Your task to perform on an android device: Turn off the flashlight Image 0: 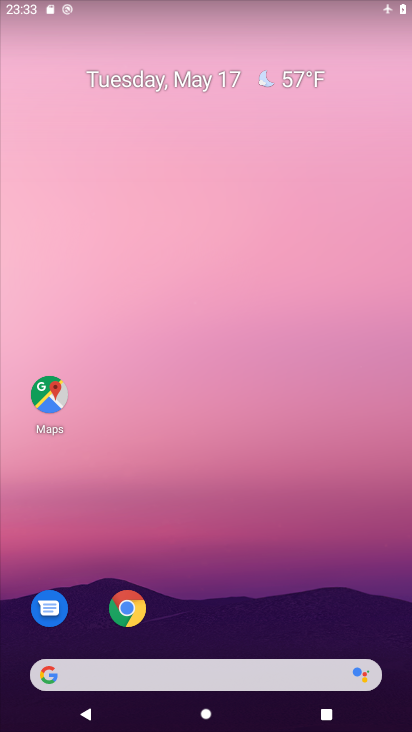
Step 0: drag from (202, 627) to (246, 148)
Your task to perform on an android device: Turn off the flashlight Image 1: 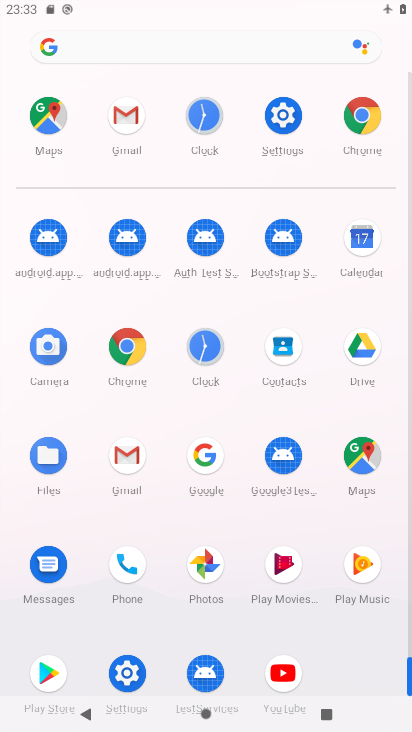
Step 1: click (124, 674)
Your task to perform on an android device: Turn off the flashlight Image 2: 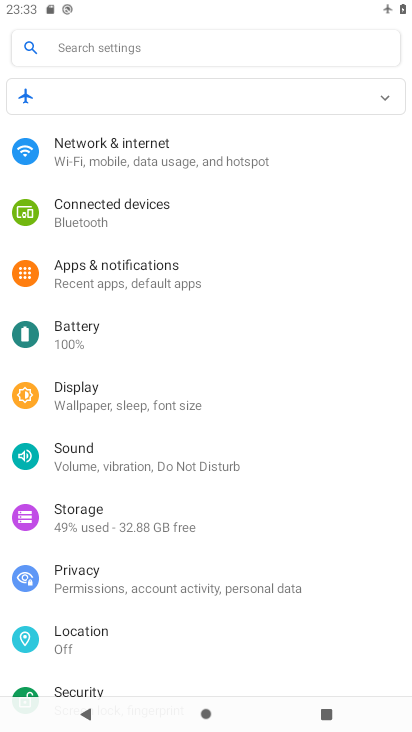
Step 2: click (148, 45)
Your task to perform on an android device: Turn off the flashlight Image 3: 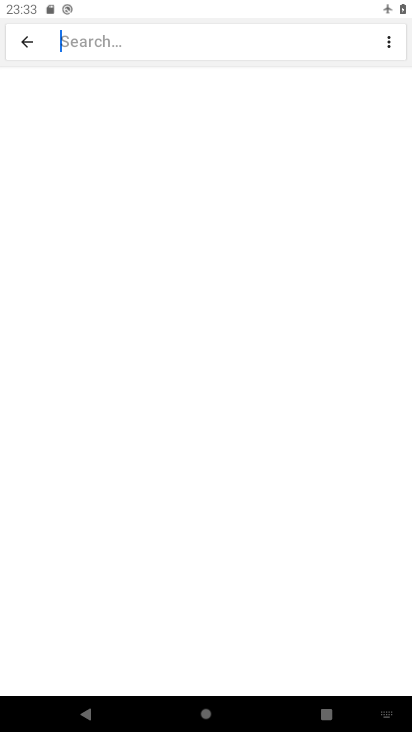
Step 3: type "flashlight"
Your task to perform on an android device: Turn off the flashlight Image 4: 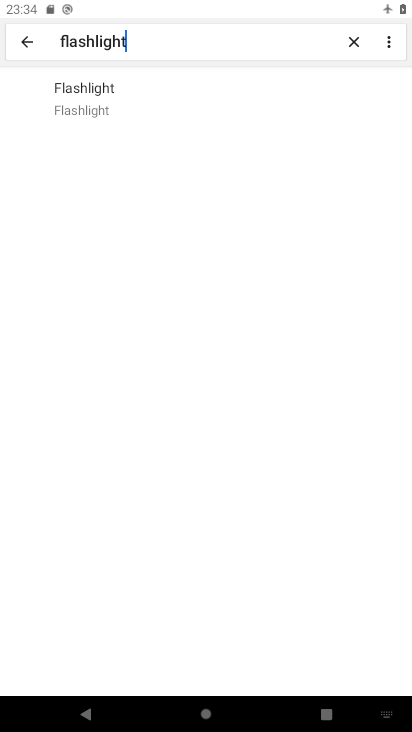
Step 4: click (104, 112)
Your task to perform on an android device: Turn off the flashlight Image 5: 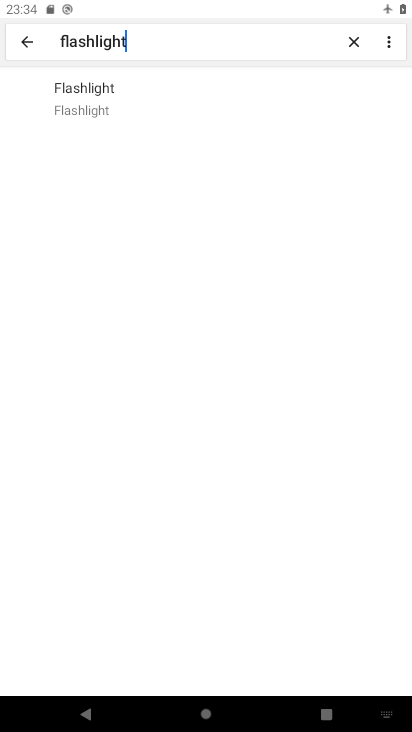
Step 5: click (105, 111)
Your task to perform on an android device: Turn off the flashlight Image 6: 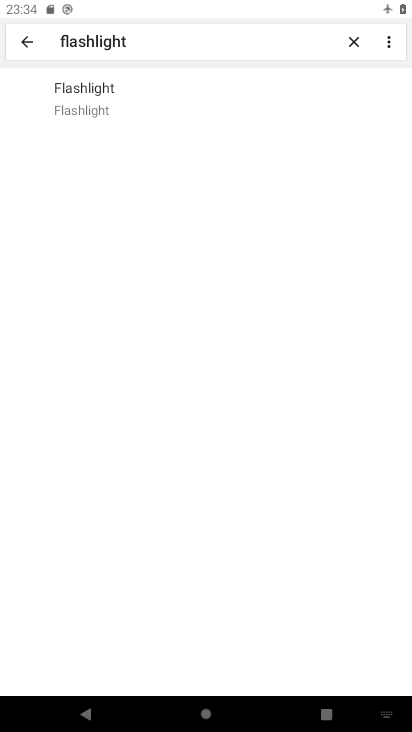
Step 6: task complete